Your task to perform on an android device: turn off notifications settings in the gmail app Image 0: 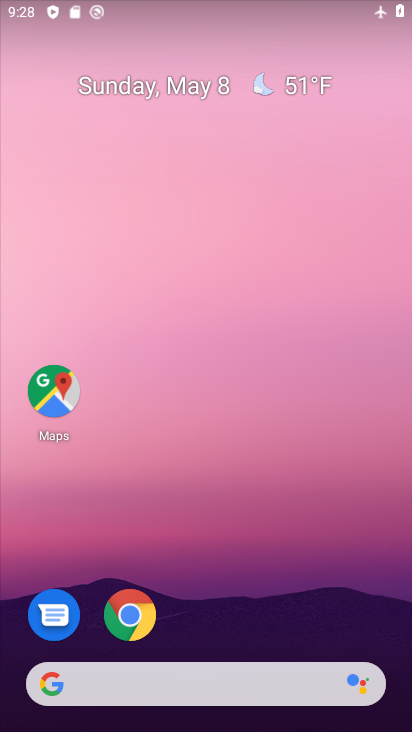
Step 0: drag from (211, 648) to (217, 230)
Your task to perform on an android device: turn off notifications settings in the gmail app Image 1: 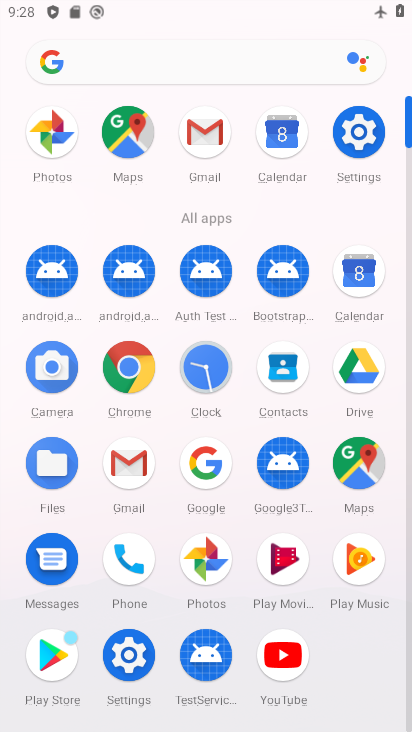
Step 1: click (198, 146)
Your task to perform on an android device: turn off notifications settings in the gmail app Image 2: 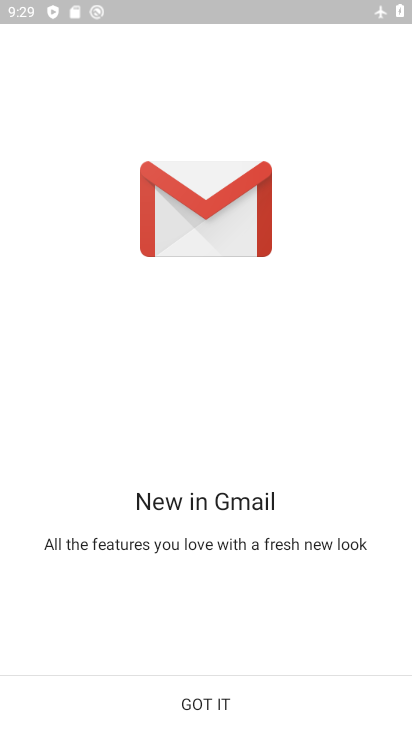
Step 2: click (229, 685)
Your task to perform on an android device: turn off notifications settings in the gmail app Image 3: 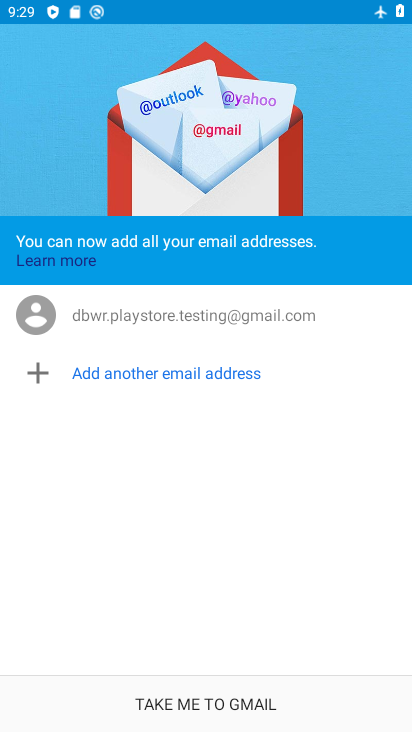
Step 3: click (179, 331)
Your task to perform on an android device: turn off notifications settings in the gmail app Image 4: 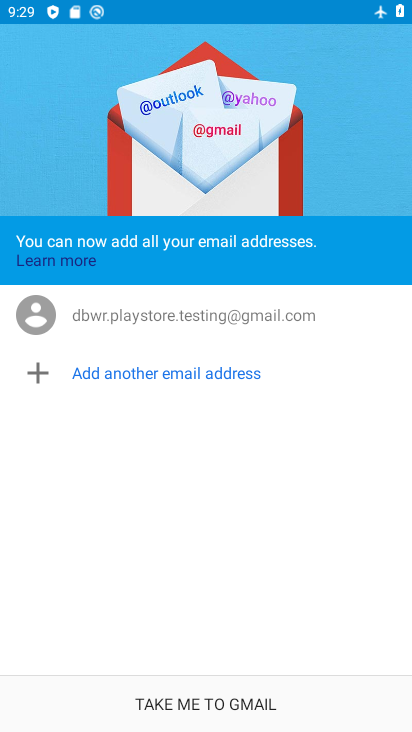
Step 4: click (201, 710)
Your task to perform on an android device: turn off notifications settings in the gmail app Image 5: 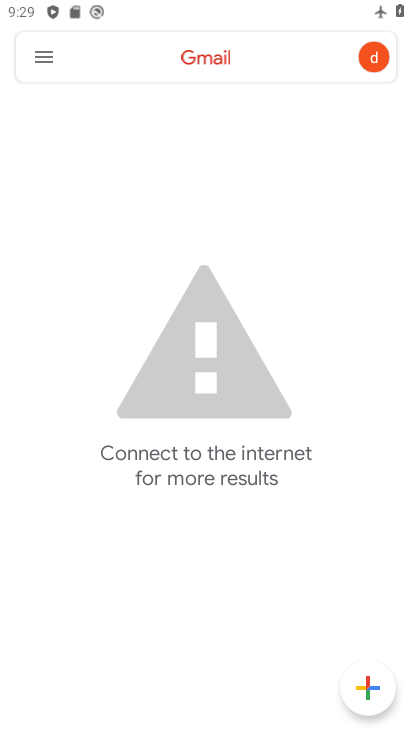
Step 5: click (45, 63)
Your task to perform on an android device: turn off notifications settings in the gmail app Image 6: 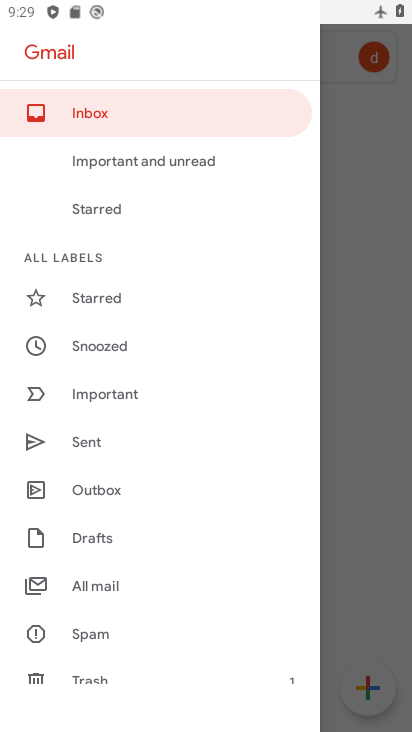
Step 6: drag from (149, 657) to (155, 353)
Your task to perform on an android device: turn off notifications settings in the gmail app Image 7: 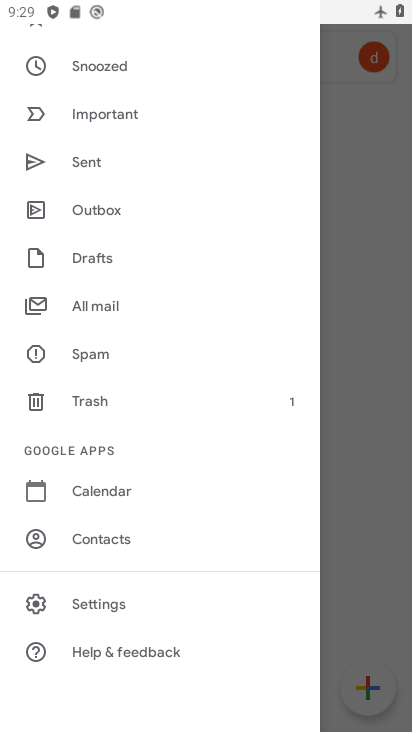
Step 7: click (106, 602)
Your task to perform on an android device: turn off notifications settings in the gmail app Image 8: 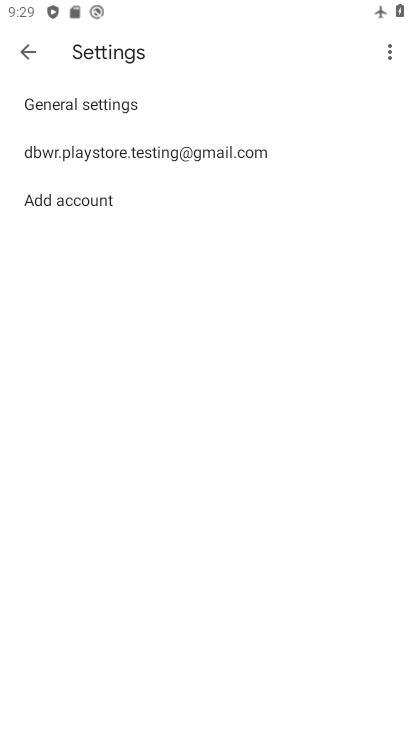
Step 8: click (132, 163)
Your task to perform on an android device: turn off notifications settings in the gmail app Image 9: 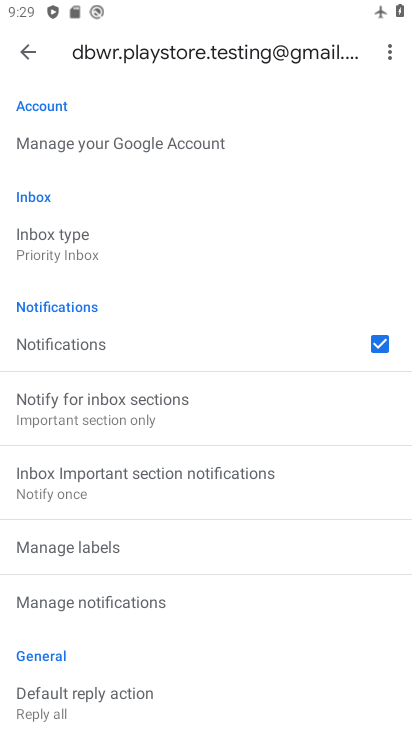
Step 9: click (126, 587)
Your task to perform on an android device: turn off notifications settings in the gmail app Image 10: 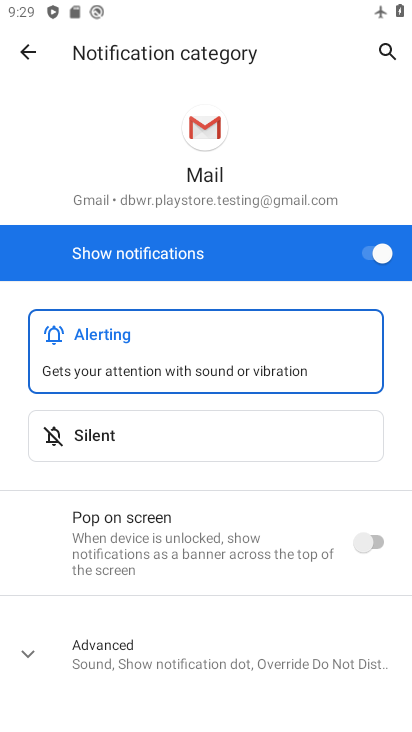
Step 10: click (363, 254)
Your task to perform on an android device: turn off notifications settings in the gmail app Image 11: 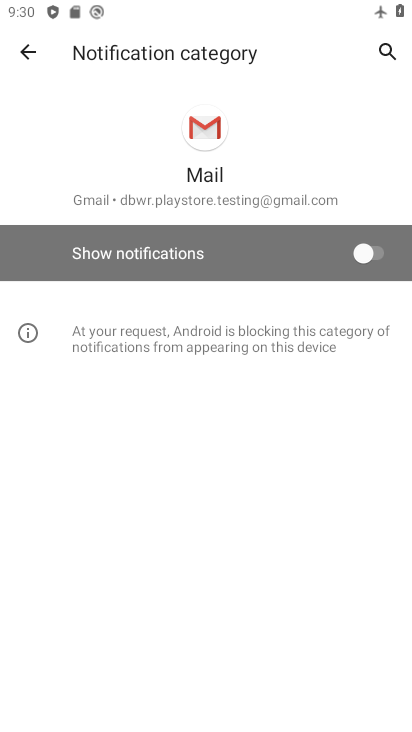
Step 11: task complete